Your task to perform on an android device: delete browsing data in the chrome app Image 0: 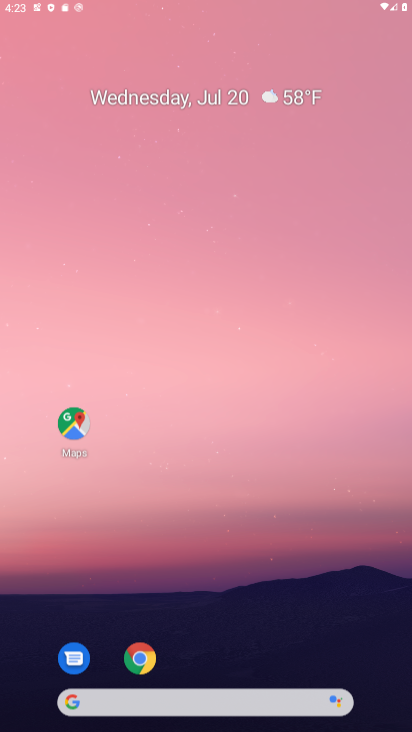
Step 0: press back button
Your task to perform on an android device: delete browsing data in the chrome app Image 1: 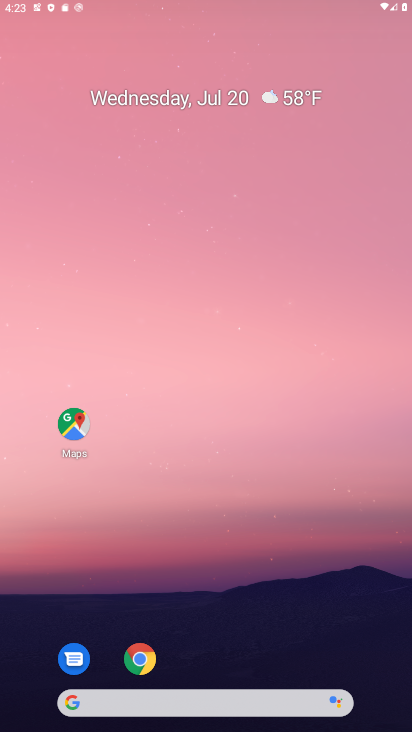
Step 1: drag from (232, 701) to (176, 185)
Your task to perform on an android device: delete browsing data in the chrome app Image 2: 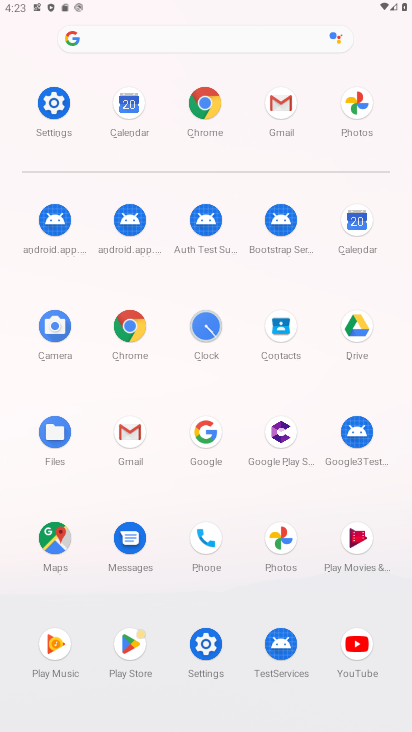
Step 2: click (201, 110)
Your task to perform on an android device: delete browsing data in the chrome app Image 3: 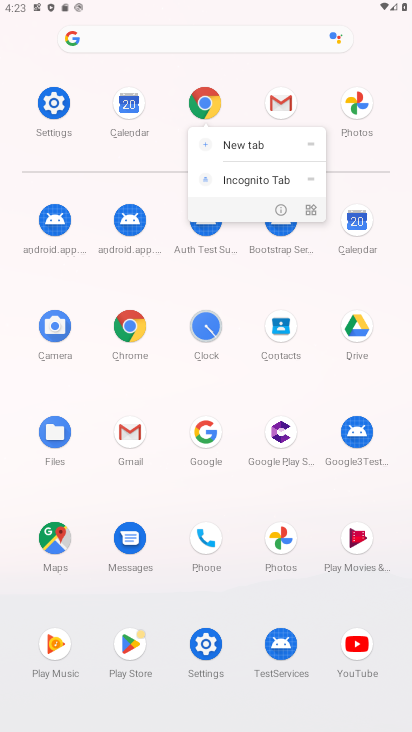
Step 3: click (208, 114)
Your task to perform on an android device: delete browsing data in the chrome app Image 4: 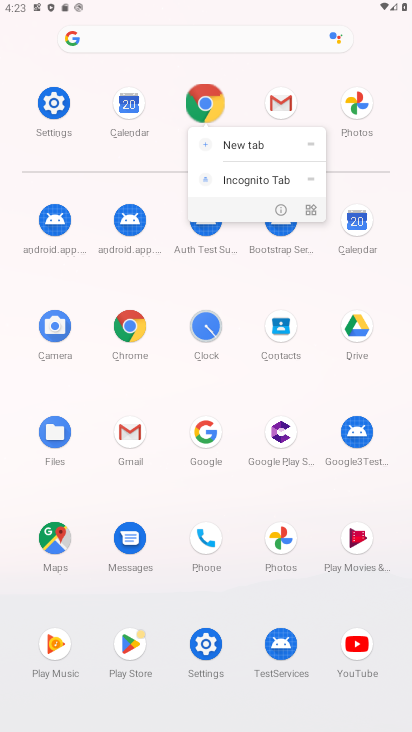
Step 4: click (210, 106)
Your task to perform on an android device: delete browsing data in the chrome app Image 5: 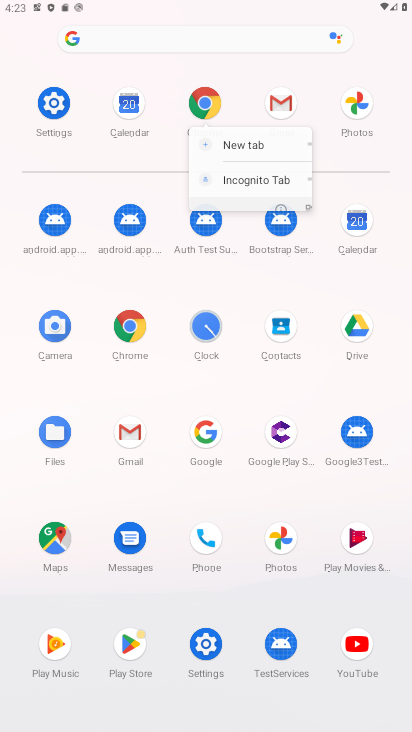
Step 5: click (210, 106)
Your task to perform on an android device: delete browsing data in the chrome app Image 6: 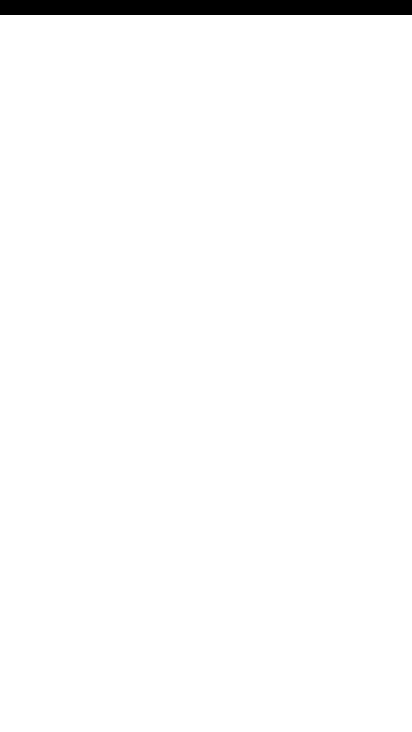
Step 6: click (209, 98)
Your task to perform on an android device: delete browsing data in the chrome app Image 7: 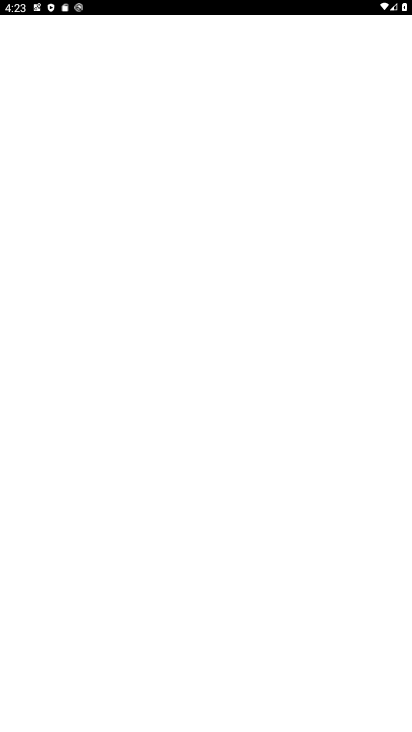
Step 7: click (210, 98)
Your task to perform on an android device: delete browsing data in the chrome app Image 8: 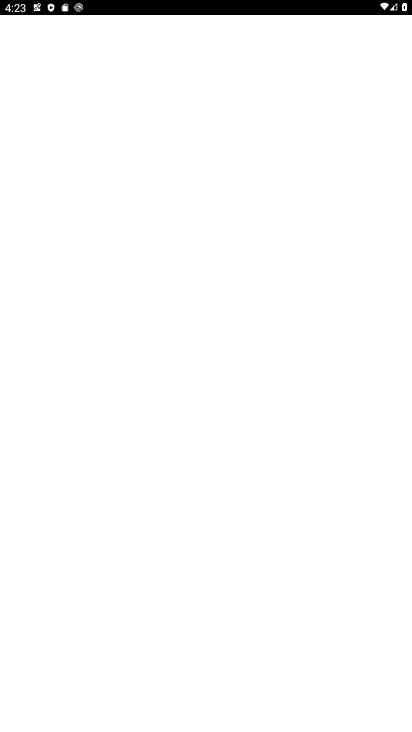
Step 8: click (208, 96)
Your task to perform on an android device: delete browsing data in the chrome app Image 9: 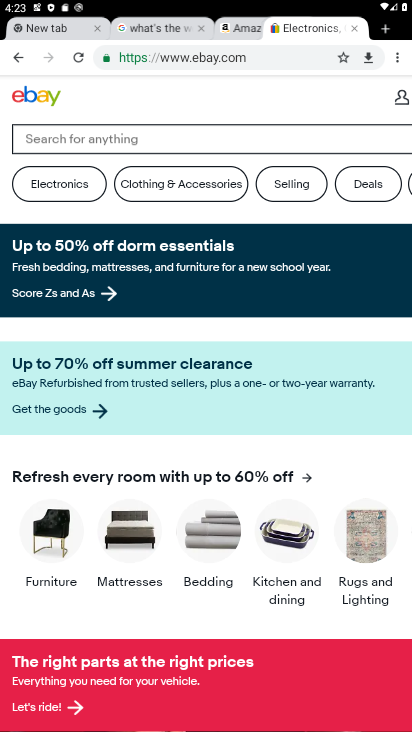
Step 9: drag from (399, 51) to (282, 189)
Your task to perform on an android device: delete browsing data in the chrome app Image 10: 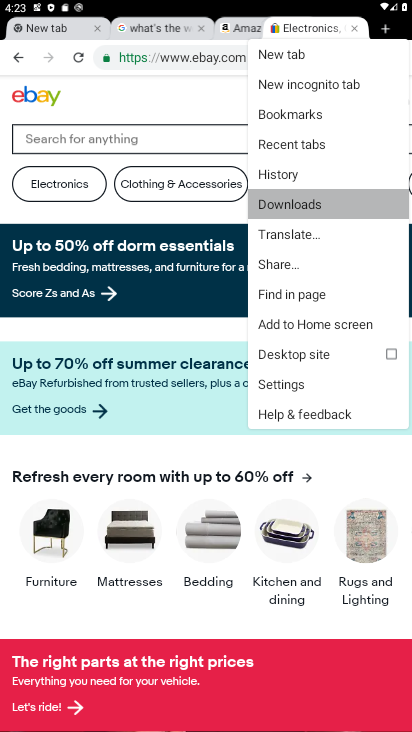
Step 10: click (277, 166)
Your task to perform on an android device: delete browsing data in the chrome app Image 11: 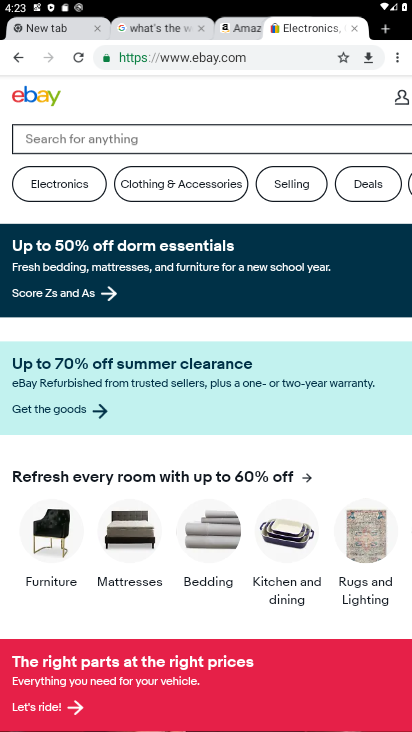
Step 11: click (277, 166)
Your task to perform on an android device: delete browsing data in the chrome app Image 12: 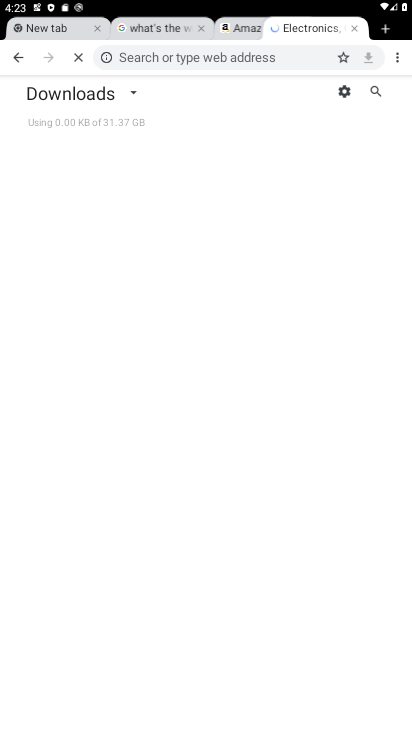
Step 12: click (277, 166)
Your task to perform on an android device: delete browsing data in the chrome app Image 13: 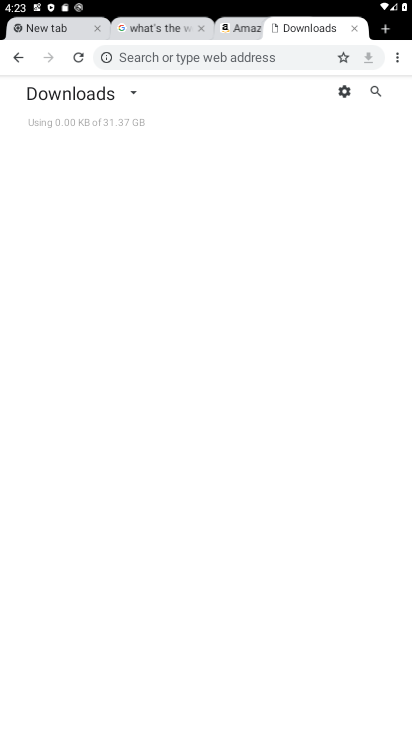
Step 13: drag from (399, 50) to (284, 178)
Your task to perform on an android device: delete browsing data in the chrome app Image 14: 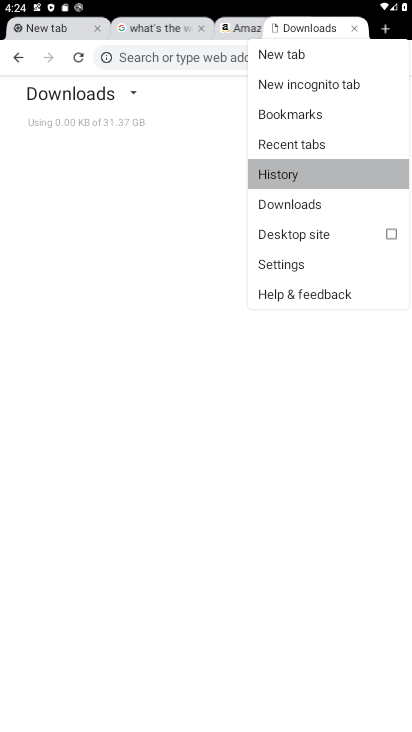
Step 14: click (285, 178)
Your task to perform on an android device: delete browsing data in the chrome app Image 15: 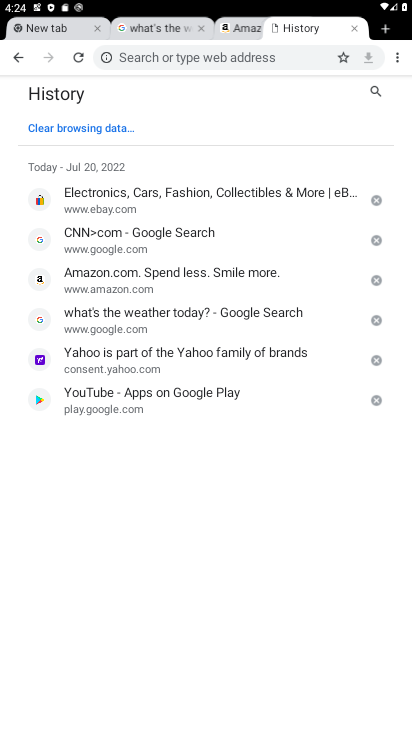
Step 15: click (91, 137)
Your task to perform on an android device: delete browsing data in the chrome app Image 16: 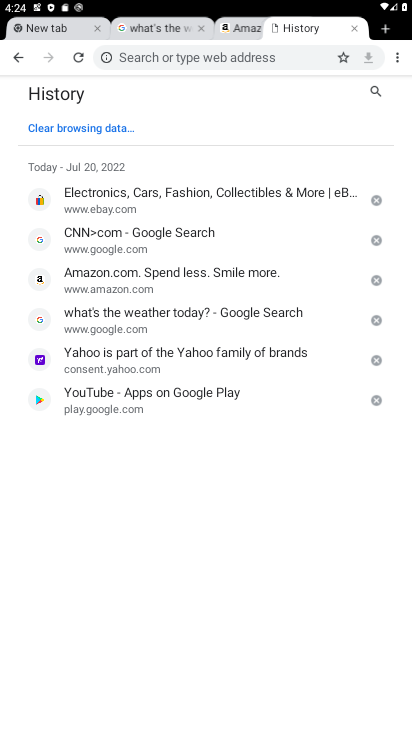
Step 16: click (87, 117)
Your task to perform on an android device: delete browsing data in the chrome app Image 17: 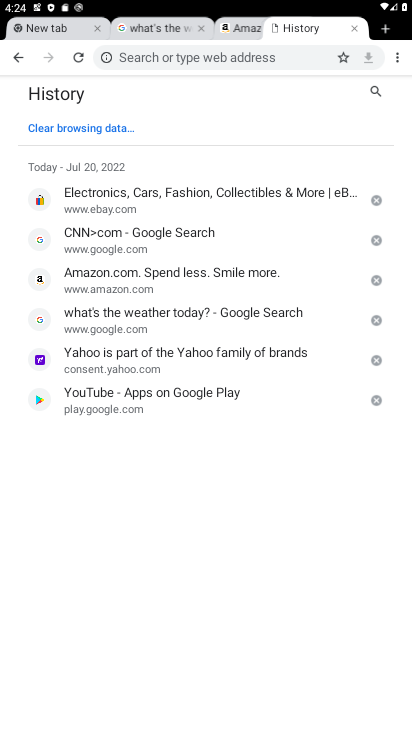
Step 17: click (92, 125)
Your task to perform on an android device: delete browsing data in the chrome app Image 18: 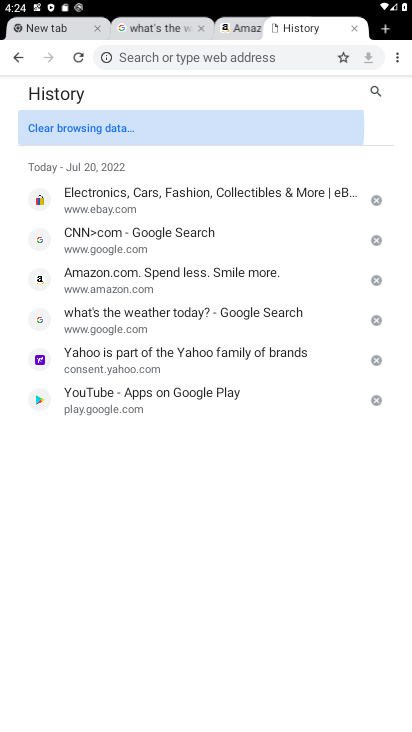
Step 18: click (95, 126)
Your task to perform on an android device: delete browsing data in the chrome app Image 19: 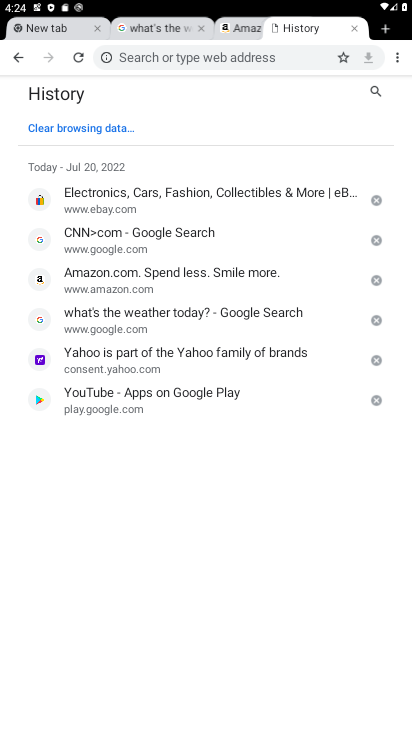
Step 19: click (104, 124)
Your task to perform on an android device: delete browsing data in the chrome app Image 20: 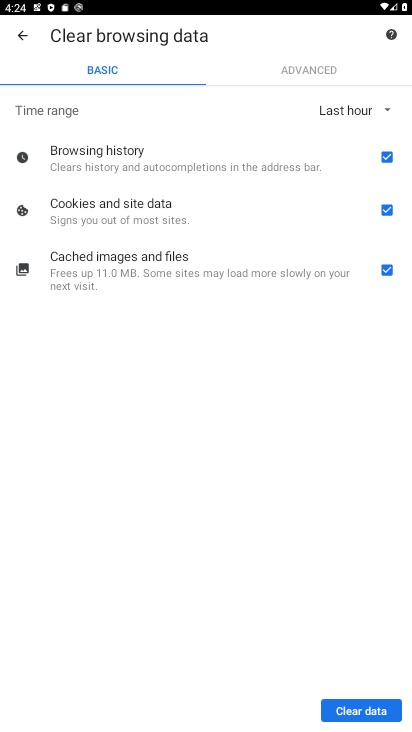
Step 20: click (375, 710)
Your task to perform on an android device: delete browsing data in the chrome app Image 21: 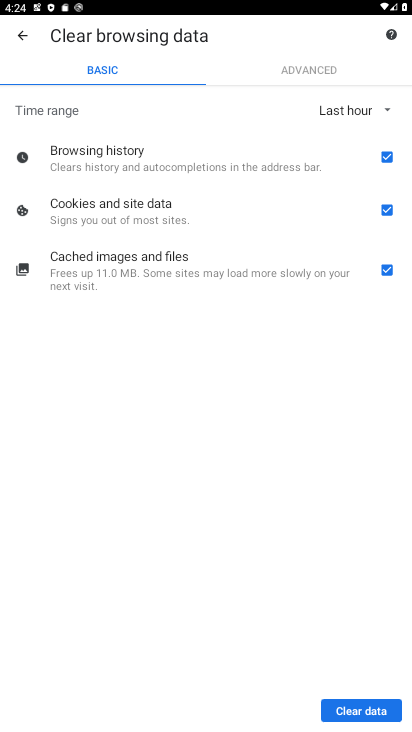
Step 21: click (369, 708)
Your task to perform on an android device: delete browsing data in the chrome app Image 22: 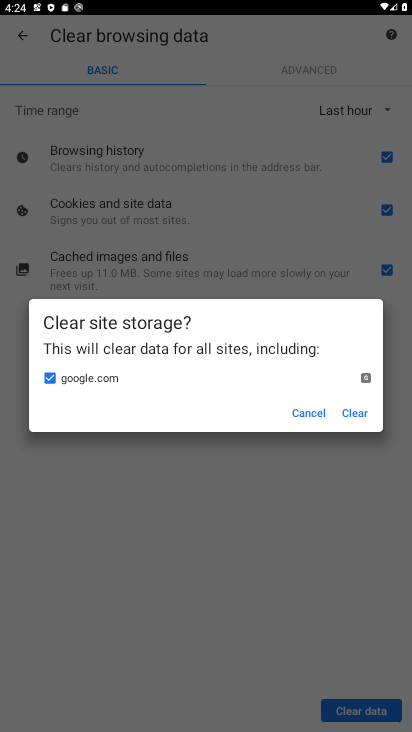
Step 22: task complete